Your task to perform on an android device: add a label to a message in the gmail app Image 0: 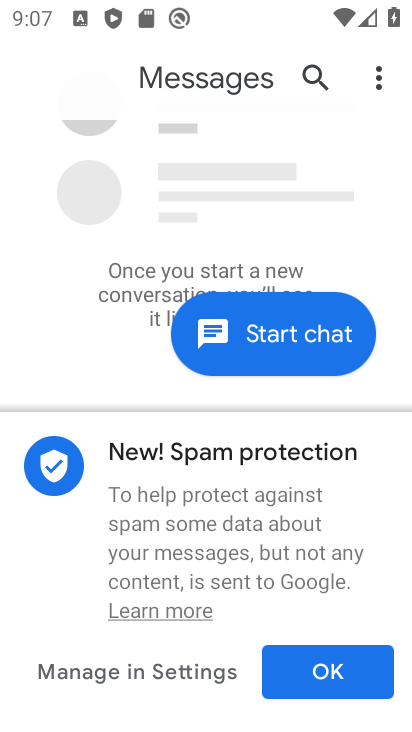
Step 0: press home button
Your task to perform on an android device: add a label to a message in the gmail app Image 1: 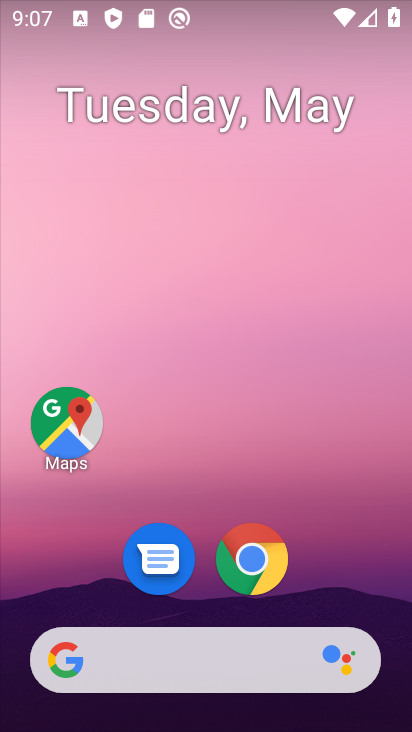
Step 1: drag from (221, 654) to (164, 92)
Your task to perform on an android device: add a label to a message in the gmail app Image 2: 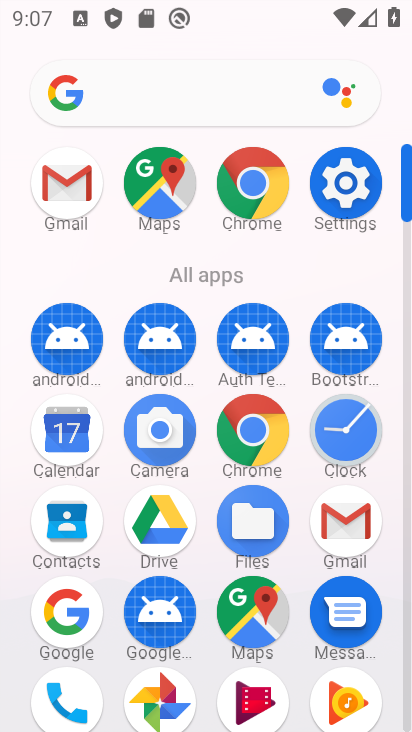
Step 2: click (72, 182)
Your task to perform on an android device: add a label to a message in the gmail app Image 3: 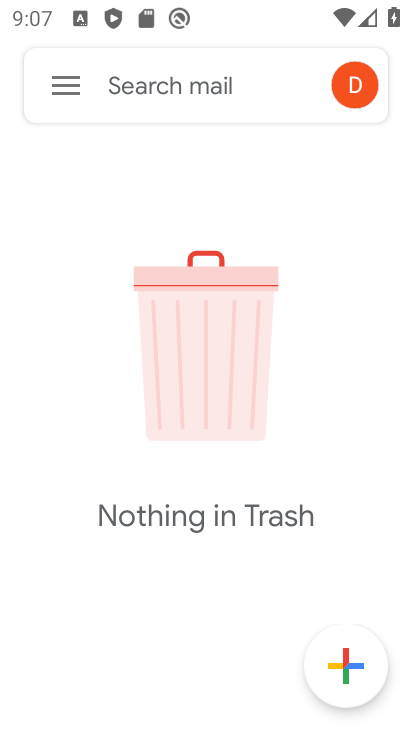
Step 3: click (74, 93)
Your task to perform on an android device: add a label to a message in the gmail app Image 4: 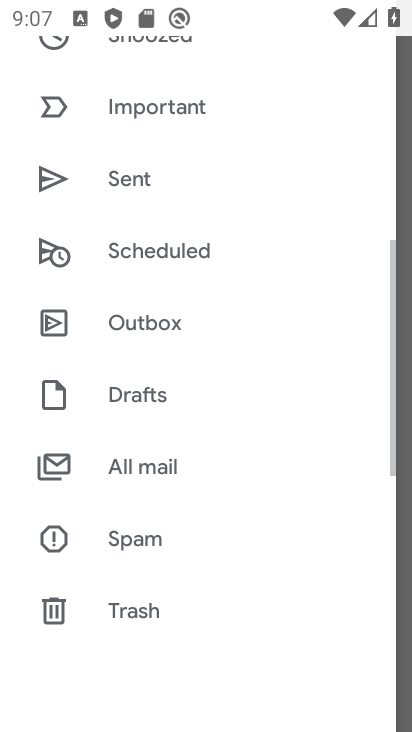
Step 4: click (145, 476)
Your task to perform on an android device: add a label to a message in the gmail app Image 5: 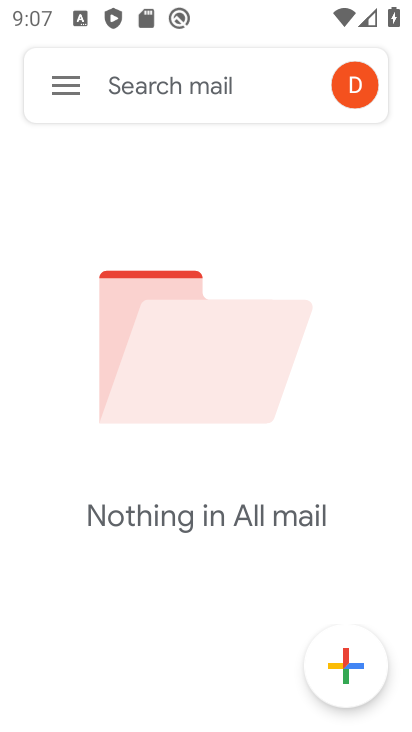
Step 5: click (68, 89)
Your task to perform on an android device: add a label to a message in the gmail app Image 6: 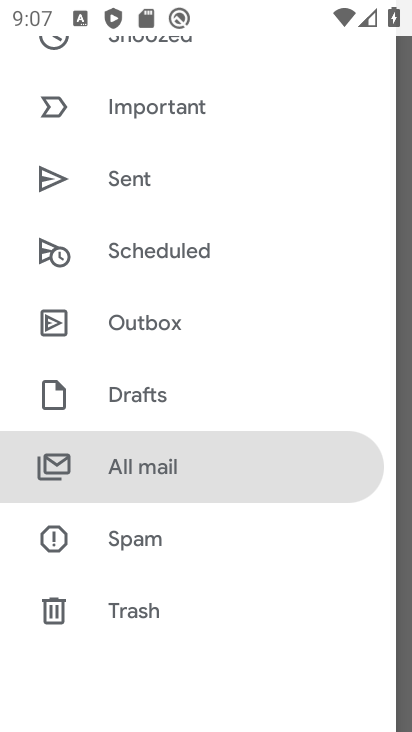
Step 6: task complete